Your task to perform on an android device: empty trash in the gmail app Image 0: 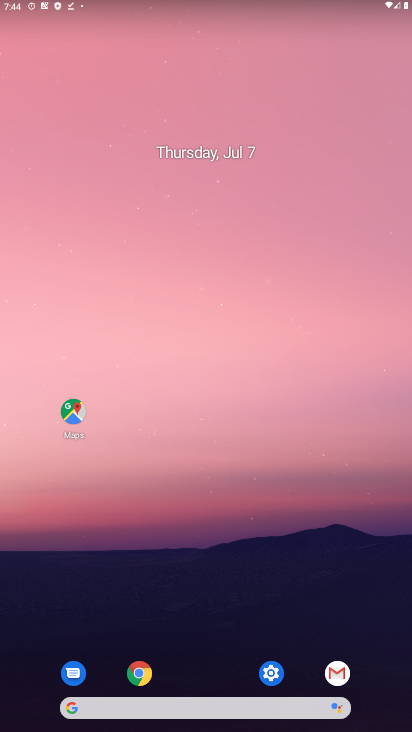
Step 0: click (333, 671)
Your task to perform on an android device: empty trash in the gmail app Image 1: 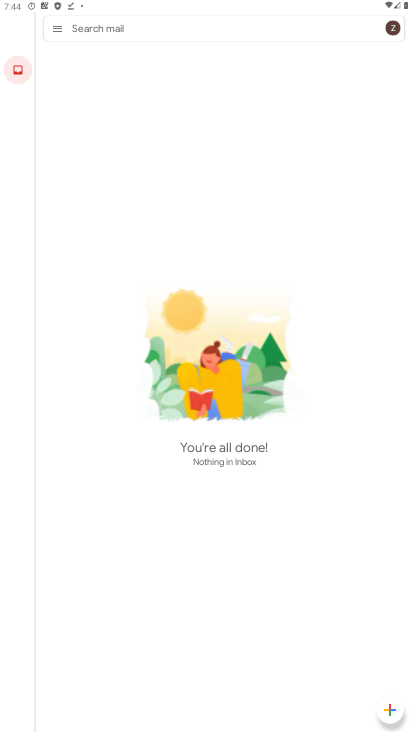
Step 1: click (58, 30)
Your task to perform on an android device: empty trash in the gmail app Image 2: 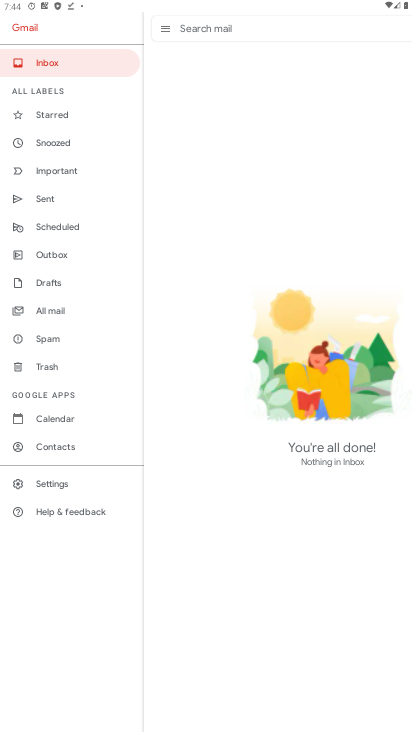
Step 2: click (58, 371)
Your task to perform on an android device: empty trash in the gmail app Image 3: 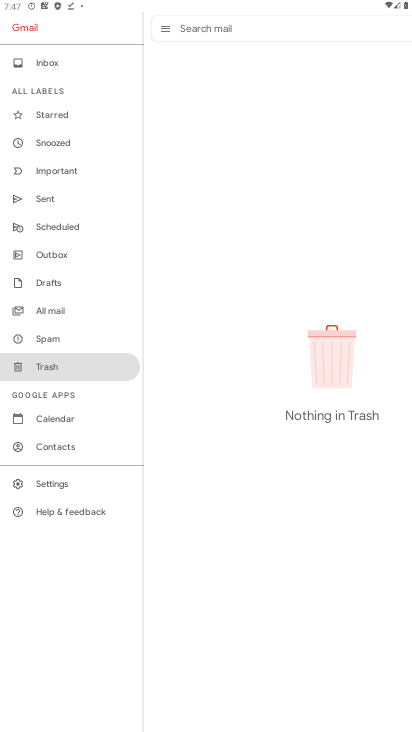
Step 3: task complete